Your task to perform on an android device: Go to CNN.com Image 0: 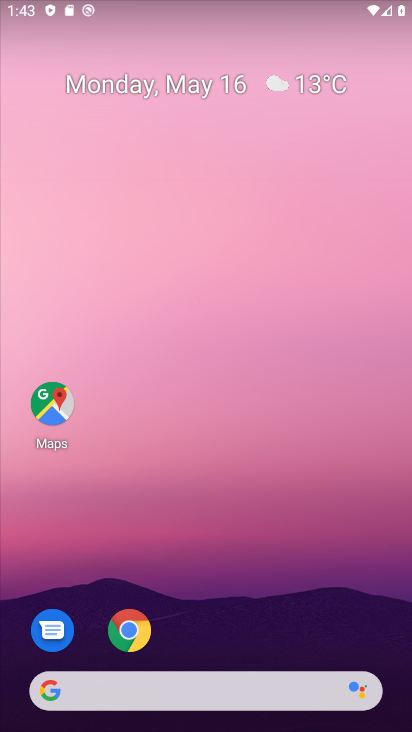
Step 0: drag from (292, 618) to (282, 267)
Your task to perform on an android device: Go to CNN.com Image 1: 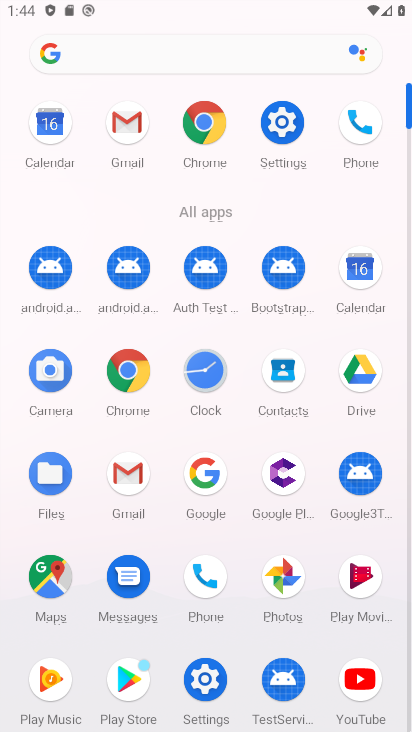
Step 1: click (126, 380)
Your task to perform on an android device: Go to CNN.com Image 2: 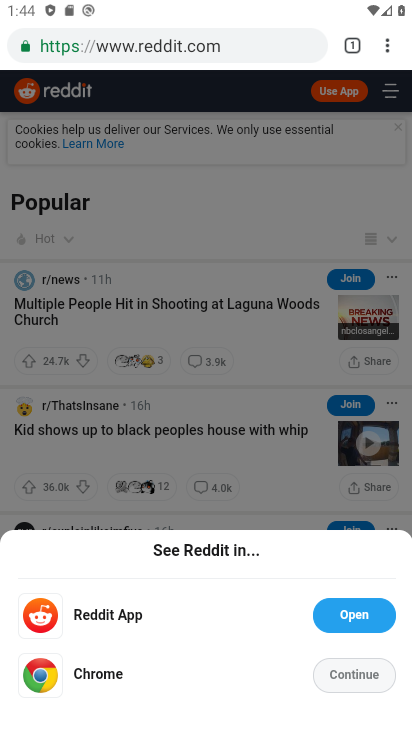
Step 2: click (220, 47)
Your task to perform on an android device: Go to CNN.com Image 3: 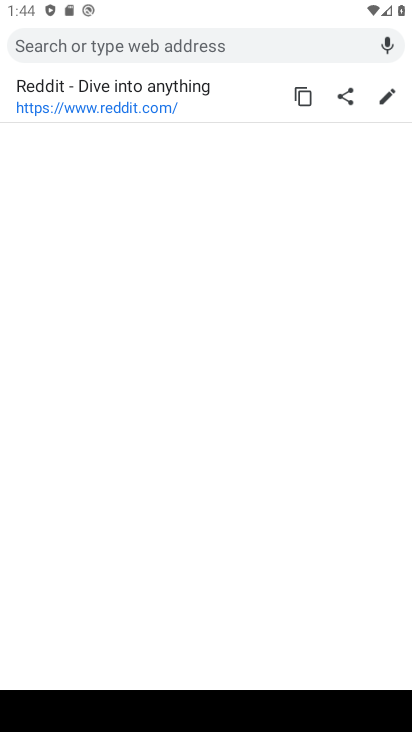
Step 3: type "cnn.com"
Your task to perform on an android device: Go to CNN.com Image 4: 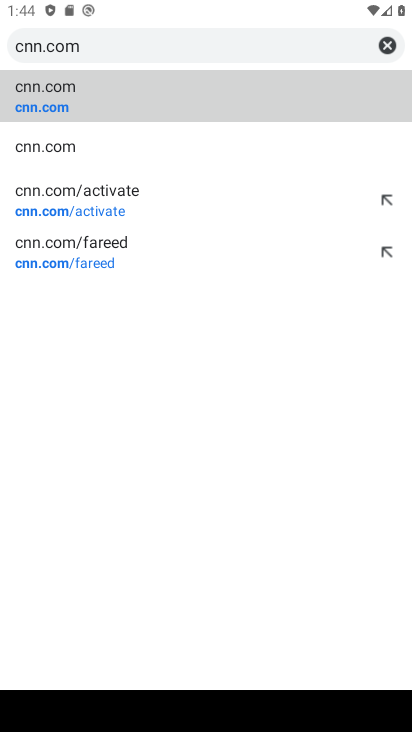
Step 4: click (102, 93)
Your task to perform on an android device: Go to CNN.com Image 5: 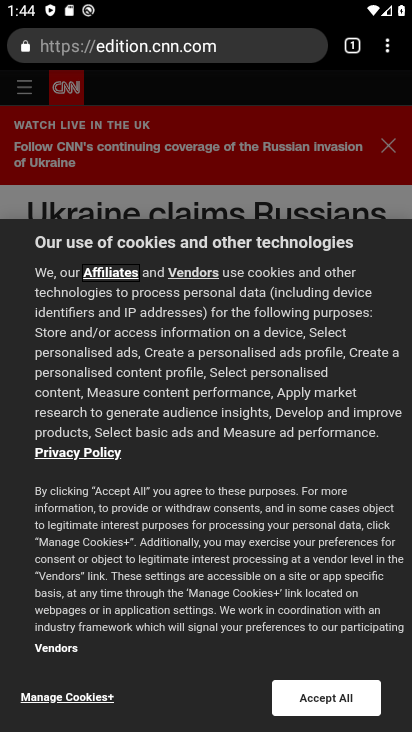
Step 5: task complete